Your task to perform on an android device: Search for a small bookcase on Ikea.com Image 0: 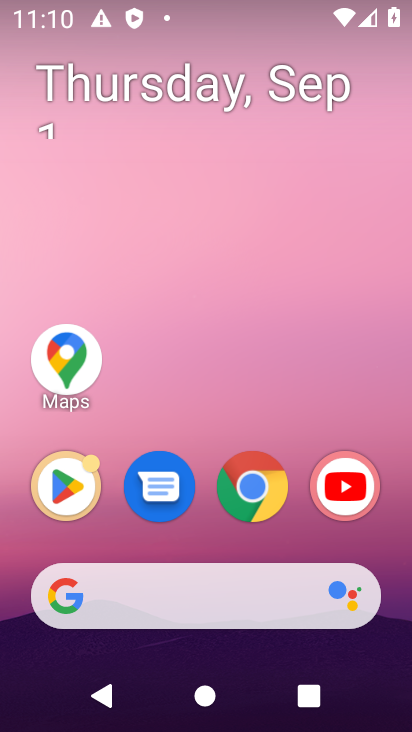
Step 0: click (251, 481)
Your task to perform on an android device: Search for a small bookcase on Ikea.com Image 1: 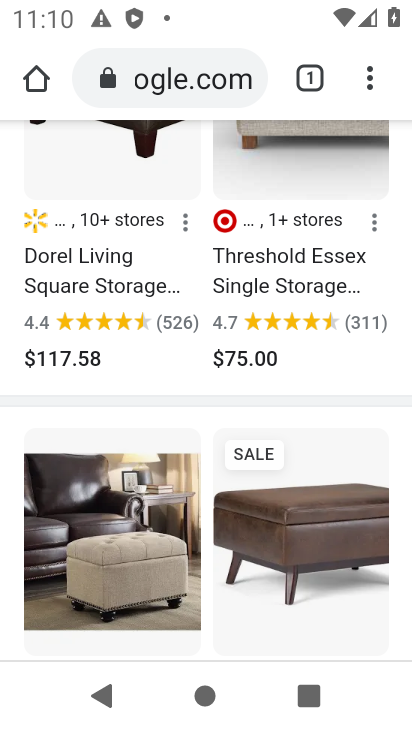
Step 1: click (309, 89)
Your task to perform on an android device: Search for a small bookcase on Ikea.com Image 2: 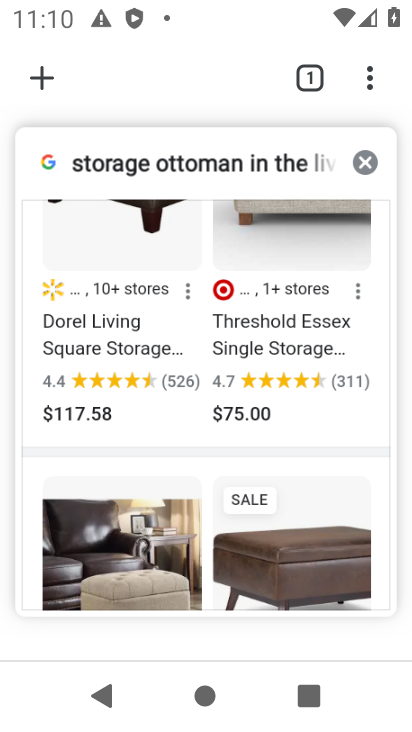
Step 2: click (38, 78)
Your task to perform on an android device: Search for a small bookcase on Ikea.com Image 3: 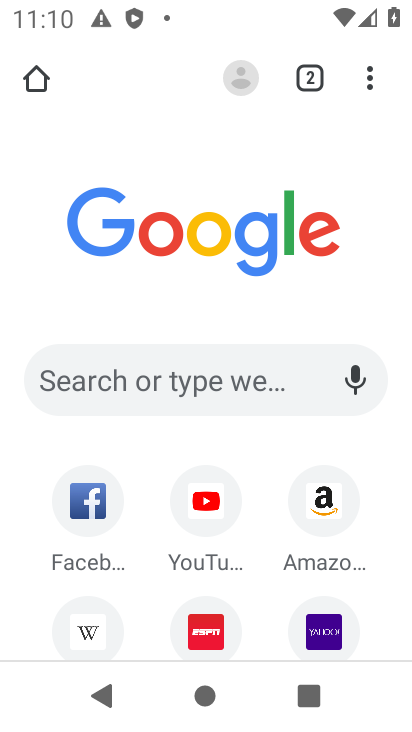
Step 3: click (99, 375)
Your task to perform on an android device: Search for a small bookcase on Ikea.com Image 4: 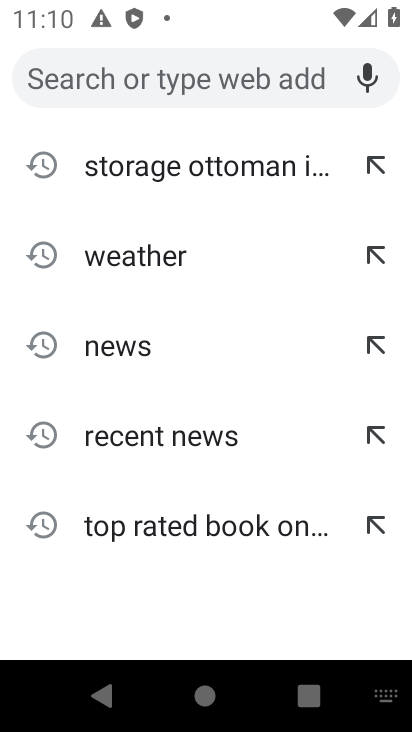
Step 4: type "ikea"
Your task to perform on an android device: Search for a small bookcase on Ikea.com Image 5: 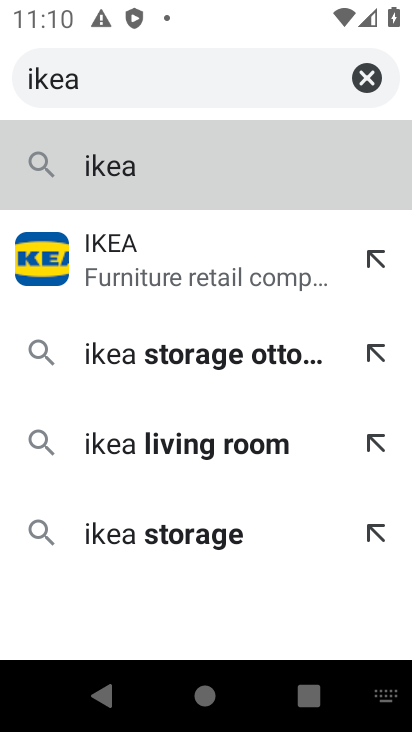
Step 5: click (112, 274)
Your task to perform on an android device: Search for a small bookcase on Ikea.com Image 6: 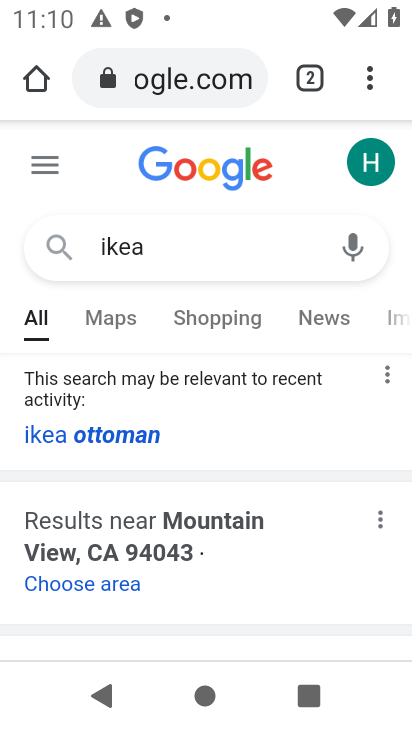
Step 6: drag from (283, 590) to (239, 262)
Your task to perform on an android device: Search for a small bookcase on Ikea.com Image 7: 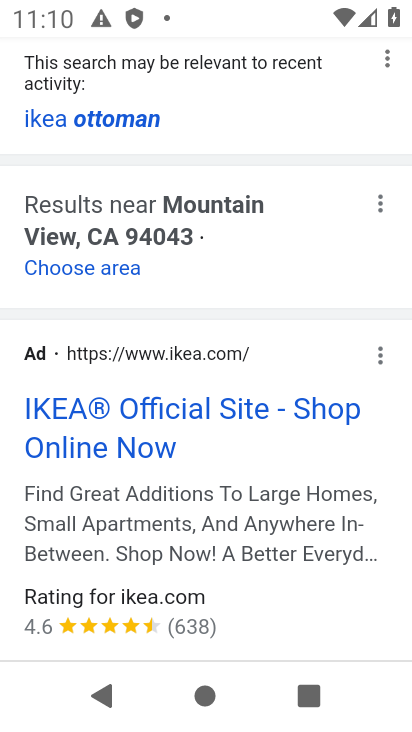
Step 7: click (111, 408)
Your task to perform on an android device: Search for a small bookcase on Ikea.com Image 8: 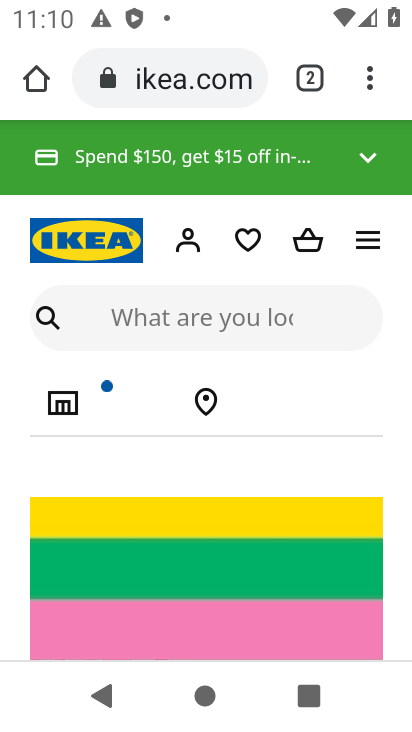
Step 8: click (171, 317)
Your task to perform on an android device: Search for a small bookcase on Ikea.com Image 9: 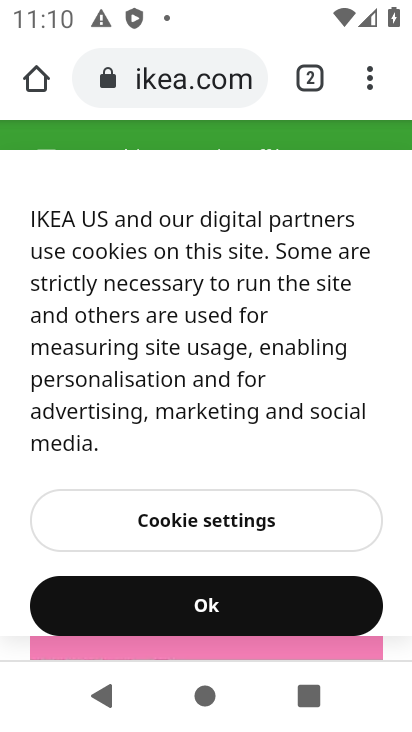
Step 9: click (183, 598)
Your task to perform on an android device: Search for a small bookcase on Ikea.com Image 10: 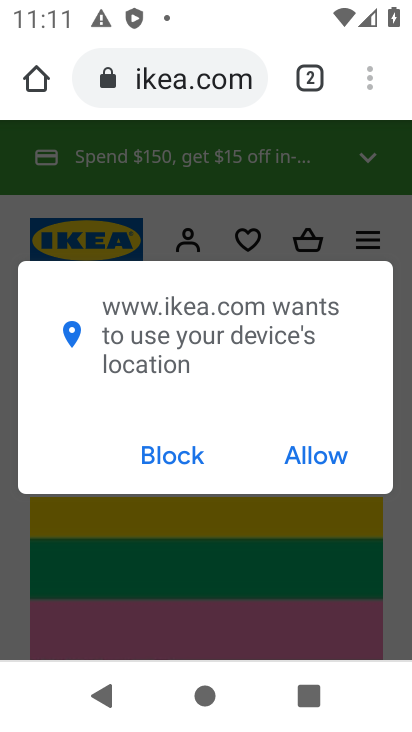
Step 10: click (177, 453)
Your task to perform on an android device: Search for a small bookcase on Ikea.com Image 11: 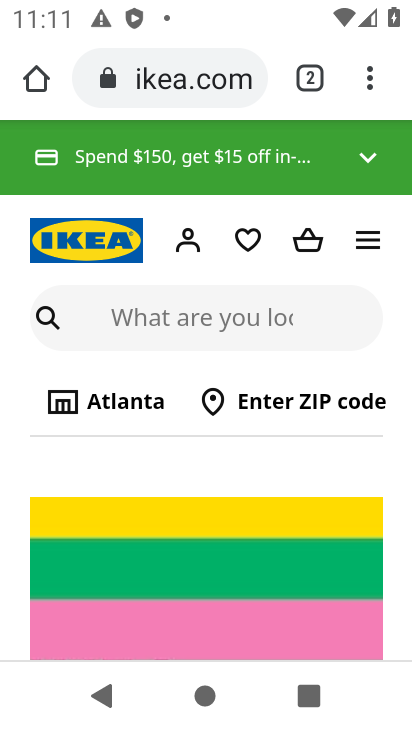
Step 11: click (158, 301)
Your task to perform on an android device: Search for a small bookcase on Ikea.com Image 12: 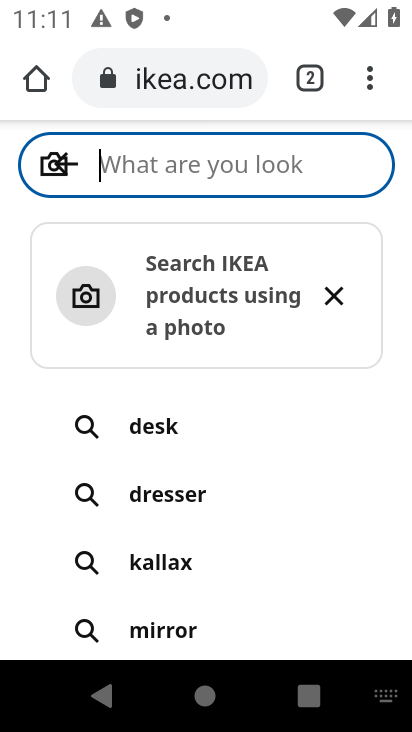
Step 12: type "small bookcase"
Your task to perform on an android device: Search for a small bookcase on Ikea.com Image 13: 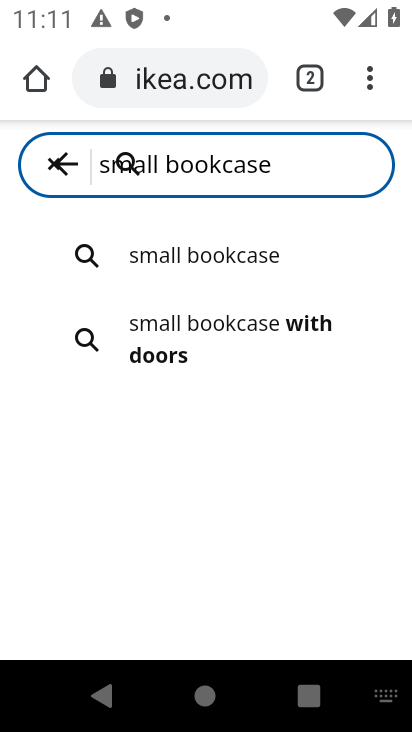
Step 13: click (248, 247)
Your task to perform on an android device: Search for a small bookcase on Ikea.com Image 14: 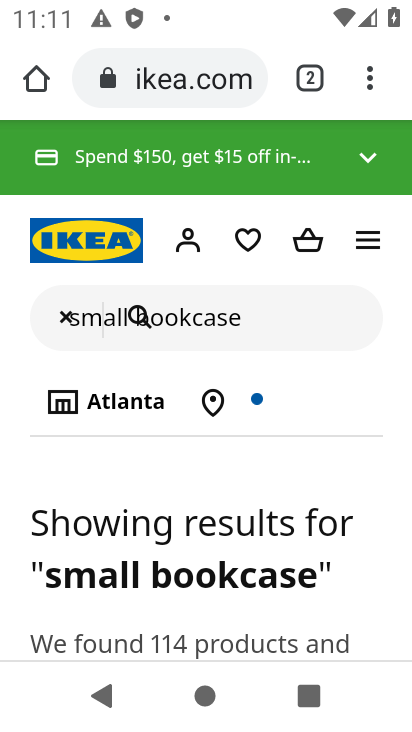
Step 14: task complete